Your task to perform on an android device: Open privacy settings Image 0: 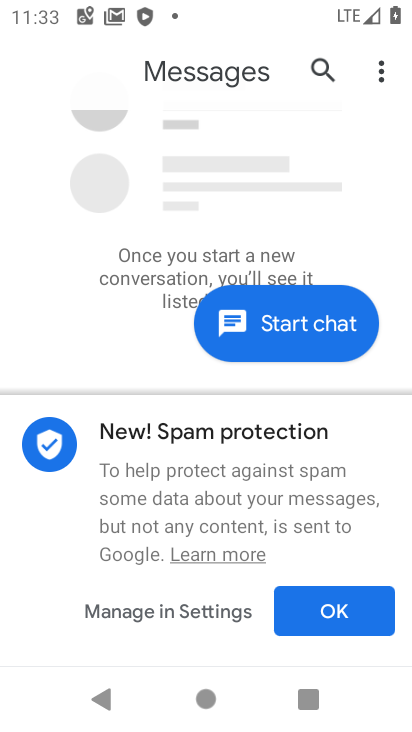
Step 0: press home button
Your task to perform on an android device: Open privacy settings Image 1: 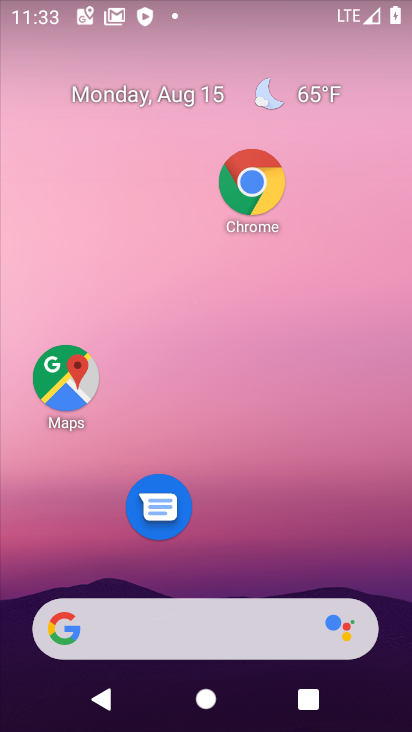
Step 1: drag from (292, 586) to (274, 1)
Your task to perform on an android device: Open privacy settings Image 2: 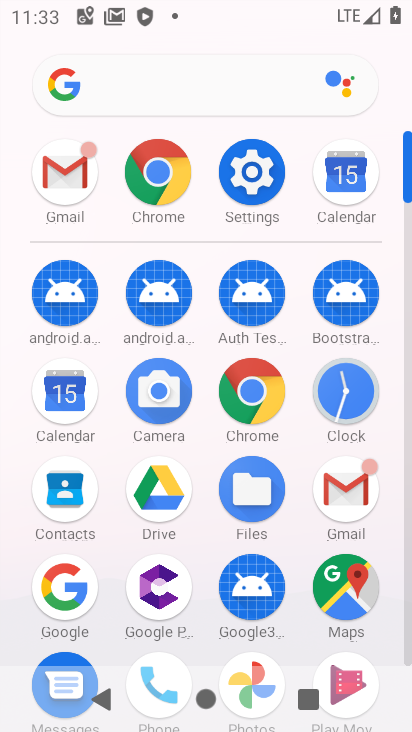
Step 2: click (247, 170)
Your task to perform on an android device: Open privacy settings Image 3: 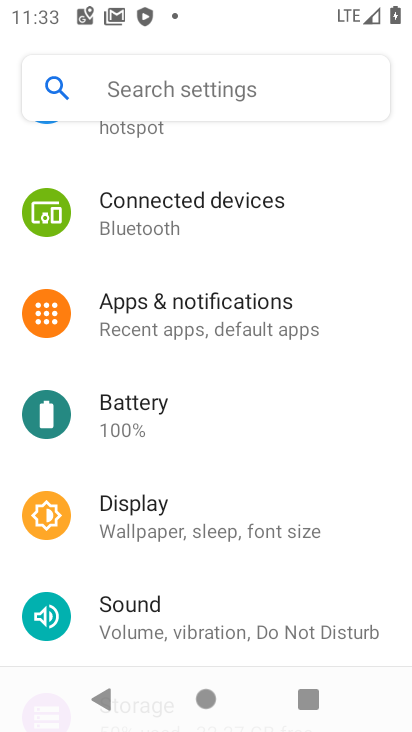
Step 3: drag from (196, 240) to (275, 673)
Your task to perform on an android device: Open privacy settings Image 4: 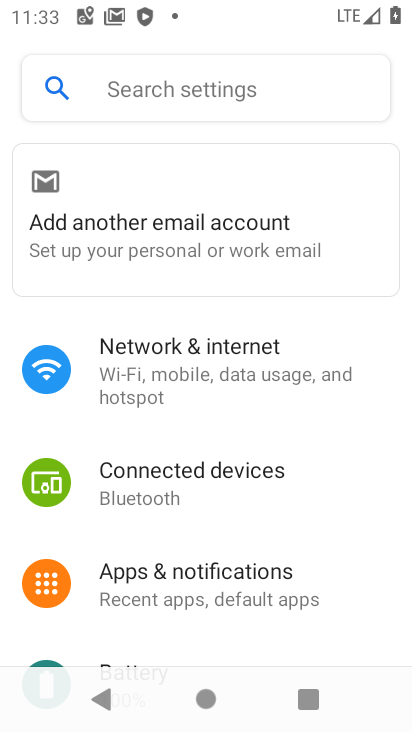
Step 4: drag from (244, 573) to (272, 222)
Your task to perform on an android device: Open privacy settings Image 5: 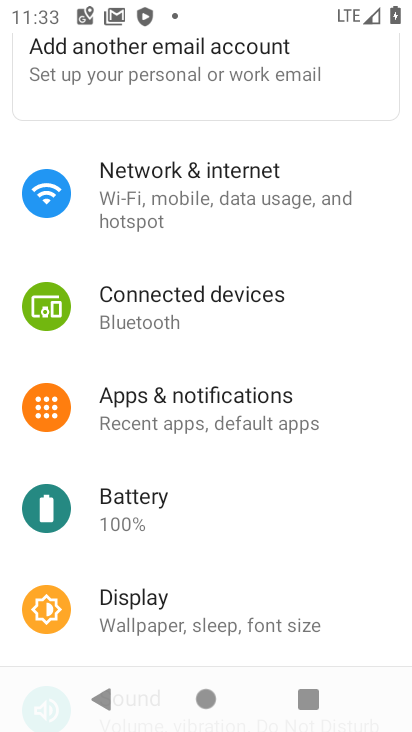
Step 5: drag from (234, 571) to (244, 349)
Your task to perform on an android device: Open privacy settings Image 6: 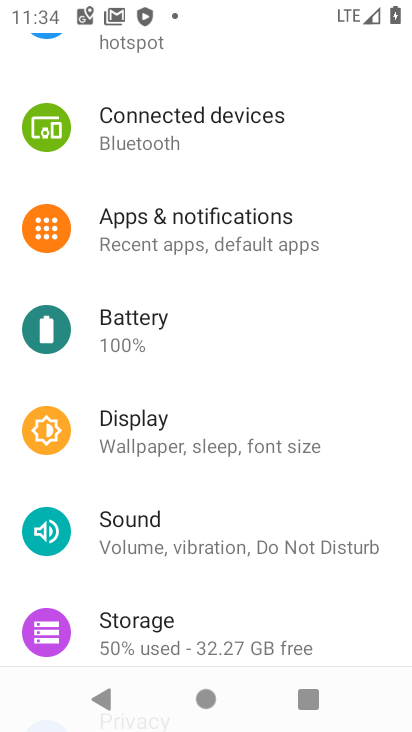
Step 6: drag from (221, 586) to (259, 200)
Your task to perform on an android device: Open privacy settings Image 7: 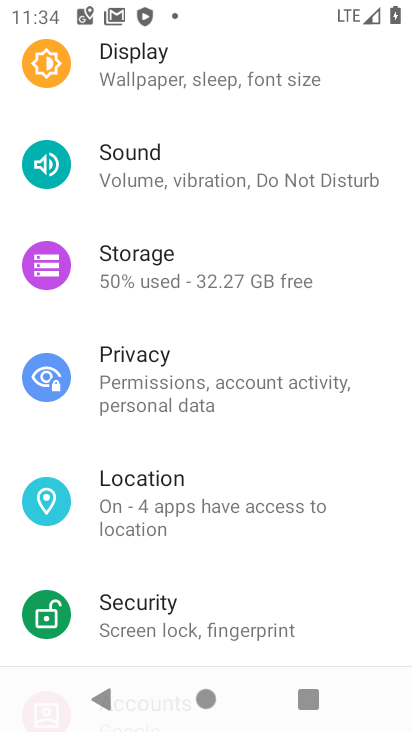
Step 7: click (208, 373)
Your task to perform on an android device: Open privacy settings Image 8: 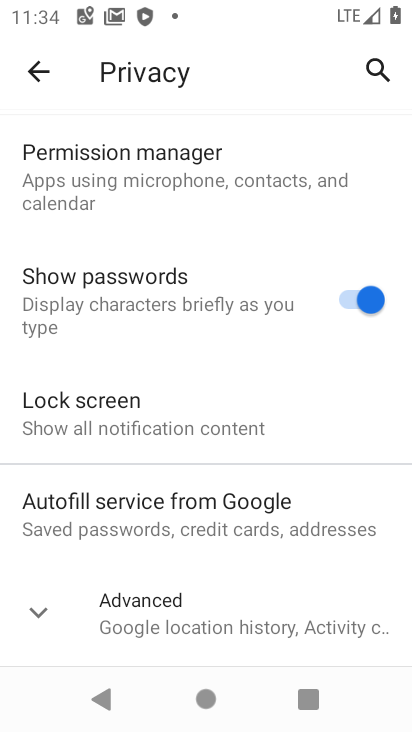
Step 8: task complete